Your task to perform on an android device: toggle wifi Image 0: 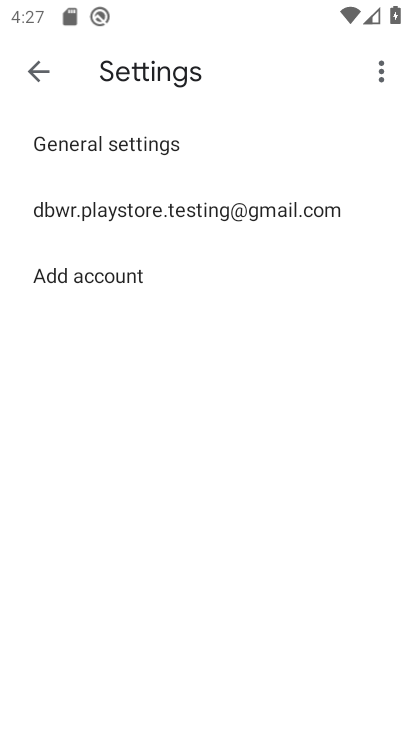
Step 0: press home button
Your task to perform on an android device: toggle wifi Image 1: 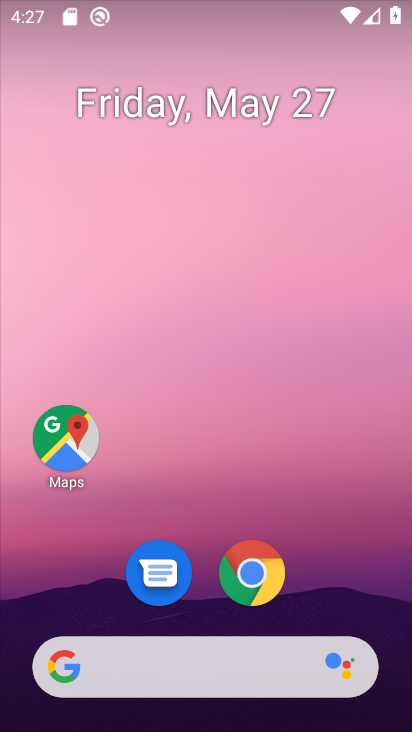
Step 1: drag from (224, 452) to (291, 1)
Your task to perform on an android device: toggle wifi Image 2: 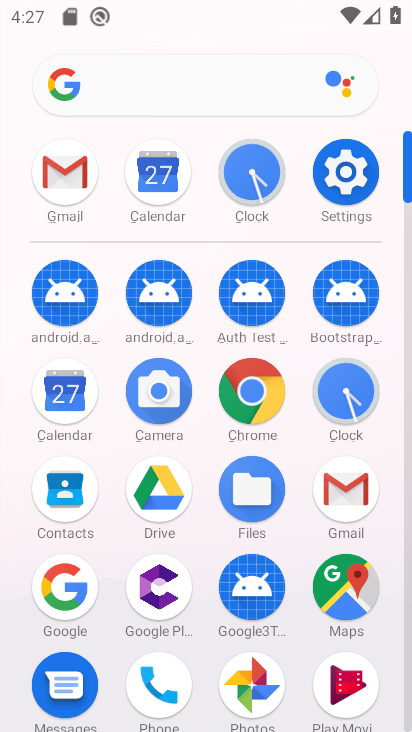
Step 2: click (349, 171)
Your task to perform on an android device: toggle wifi Image 3: 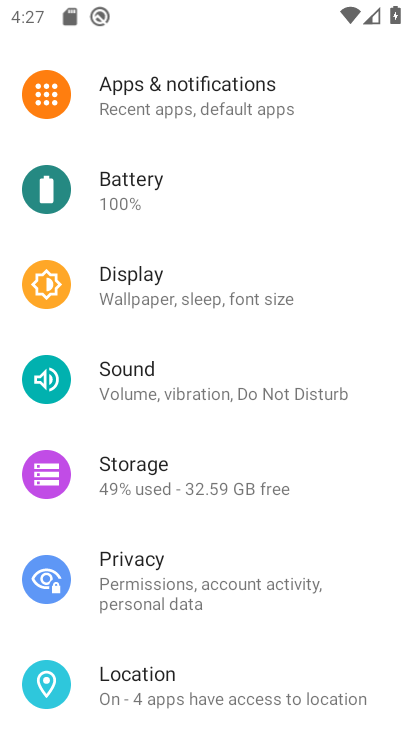
Step 3: drag from (264, 242) to (271, 549)
Your task to perform on an android device: toggle wifi Image 4: 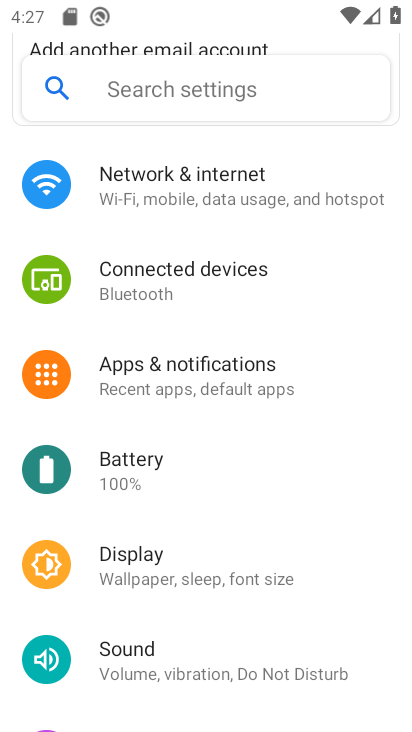
Step 4: click (233, 179)
Your task to perform on an android device: toggle wifi Image 5: 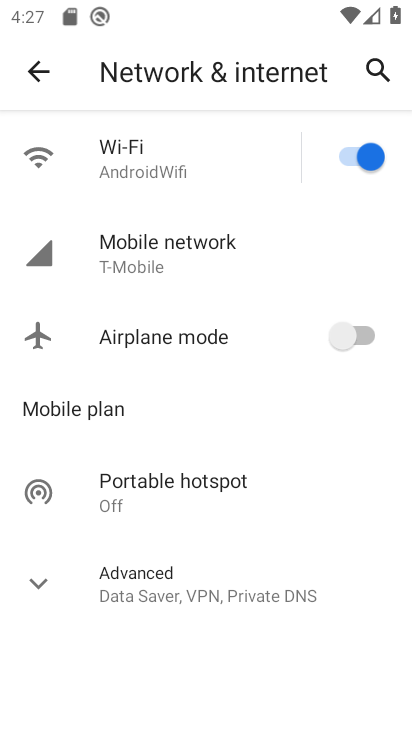
Step 5: click (353, 154)
Your task to perform on an android device: toggle wifi Image 6: 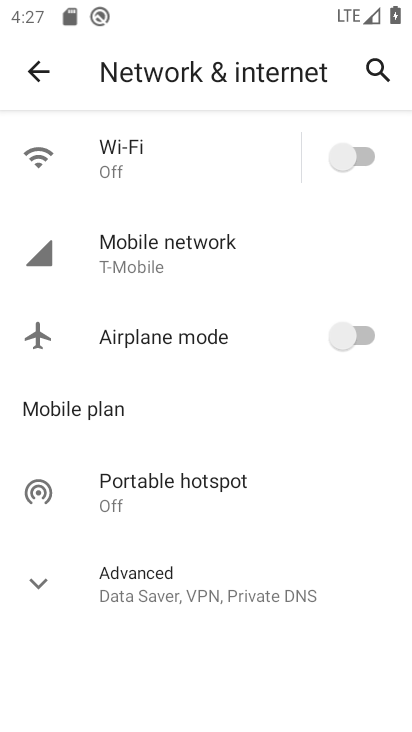
Step 6: task complete